Your task to perform on an android device: Open CNN.com Image 0: 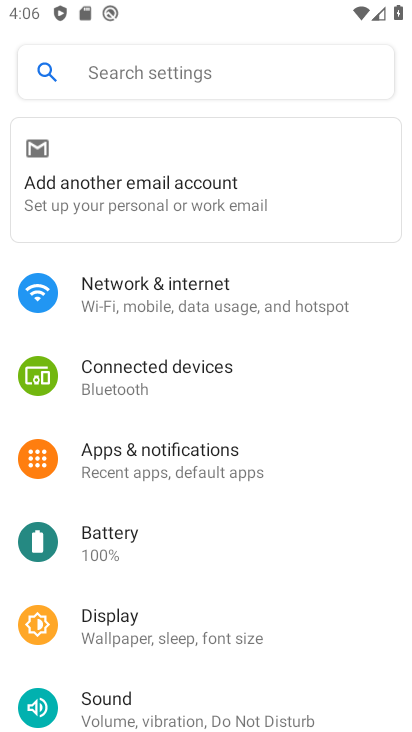
Step 0: press home button
Your task to perform on an android device: Open CNN.com Image 1: 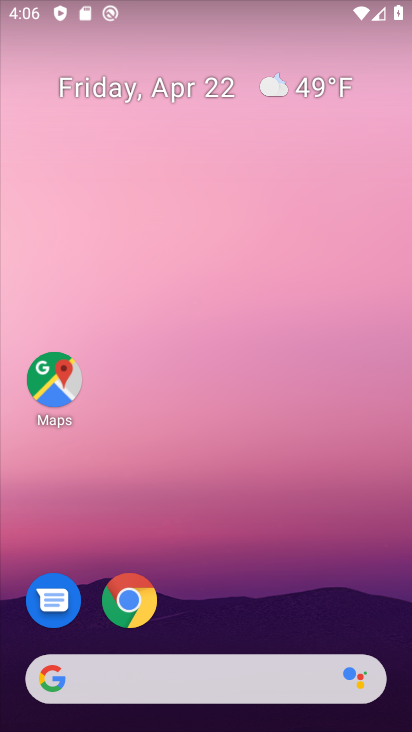
Step 1: click (130, 597)
Your task to perform on an android device: Open CNN.com Image 2: 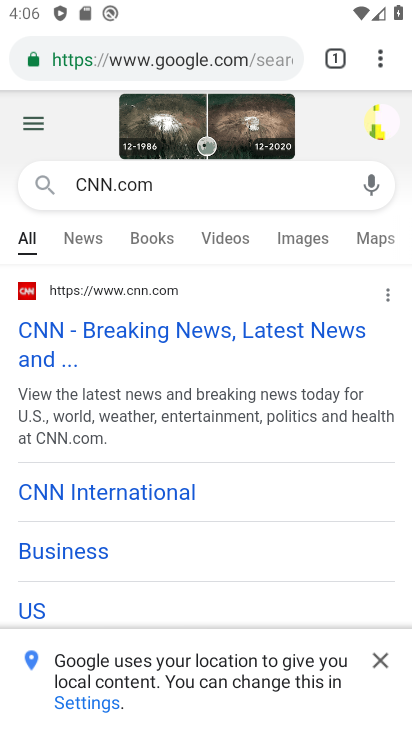
Step 2: click (269, 57)
Your task to perform on an android device: Open CNN.com Image 3: 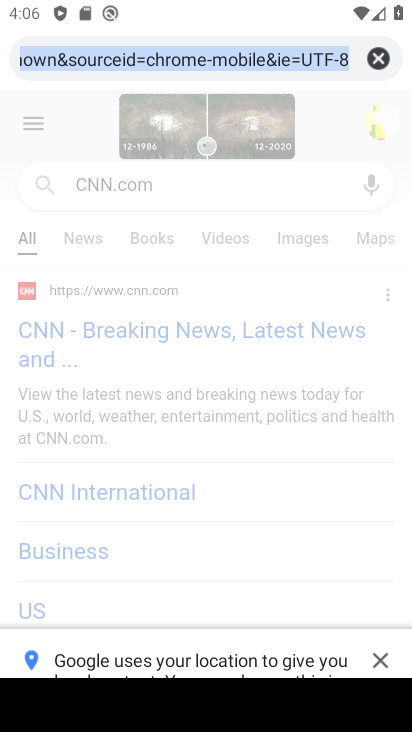
Step 3: click (377, 65)
Your task to perform on an android device: Open CNN.com Image 4: 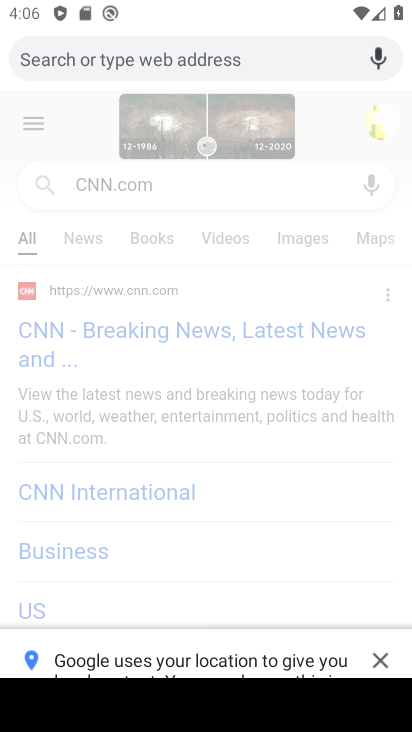
Step 4: type "CNN.com"
Your task to perform on an android device: Open CNN.com Image 5: 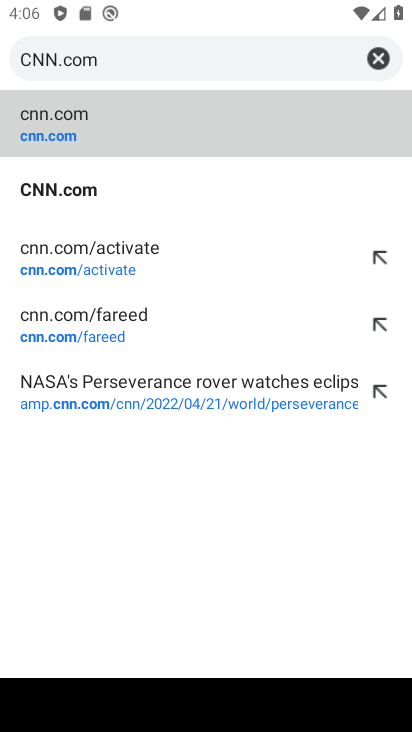
Step 5: click (84, 190)
Your task to perform on an android device: Open CNN.com Image 6: 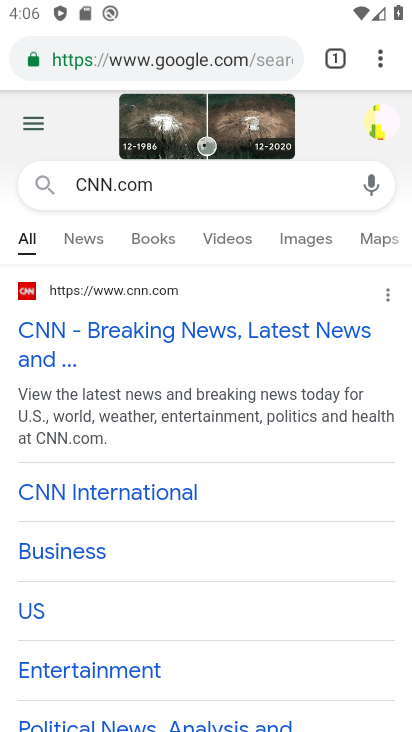
Step 6: task complete